Your task to perform on an android device: turn on priority inbox in the gmail app Image 0: 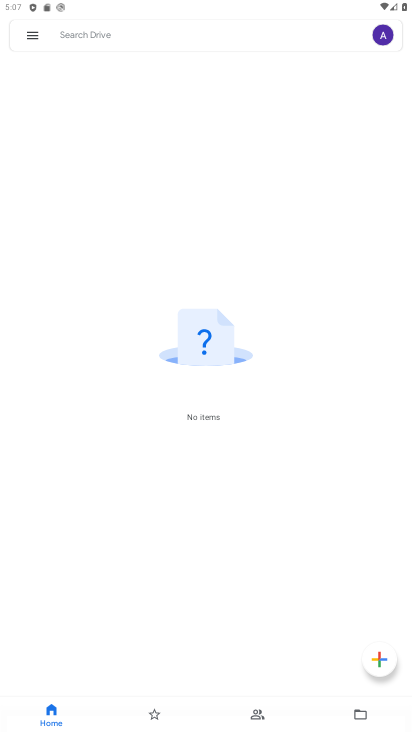
Step 0: press home button
Your task to perform on an android device: turn on priority inbox in the gmail app Image 1: 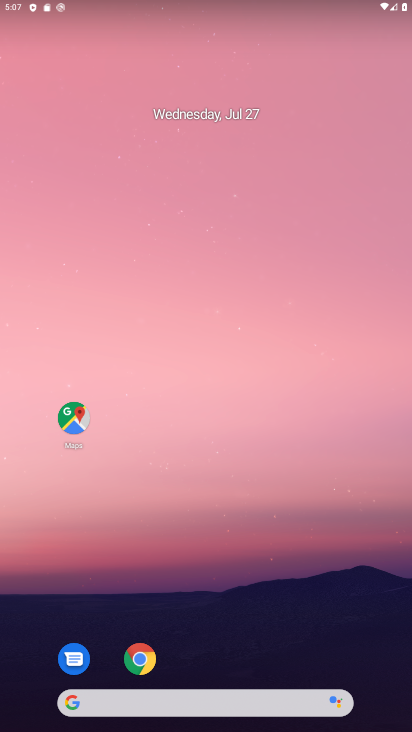
Step 1: drag from (248, 621) to (272, 101)
Your task to perform on an android device: turn on priority inbox in the gmail app Image 2: 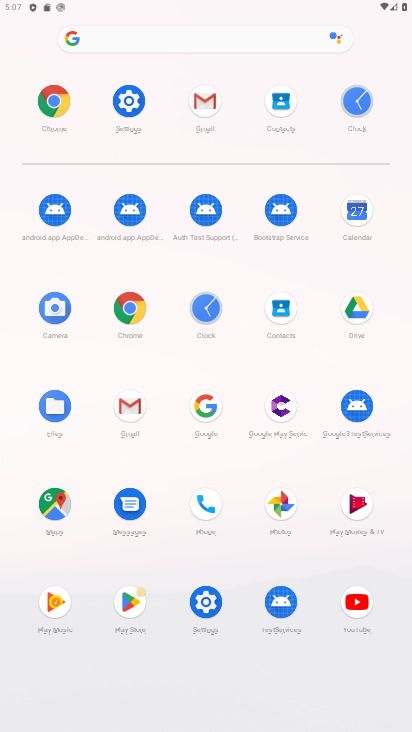
Step 2: click (129, 398)
Your task to perform on an android device: turn on priority inbox in the gmail app Image 3: 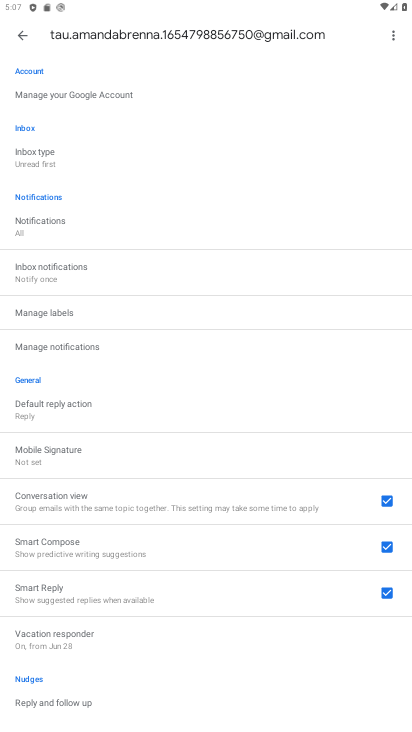
Step 3: click (37, 156)
Your task to perform on an android device: turn on priority inbox in the gmail app Image 4: 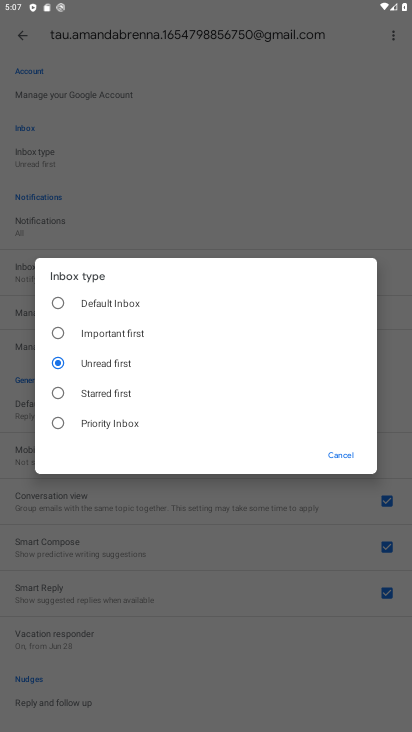
Step 4: click (107, 427)
Your task to perform on an android device: turn on priority inbox in the gmail app Image 5: 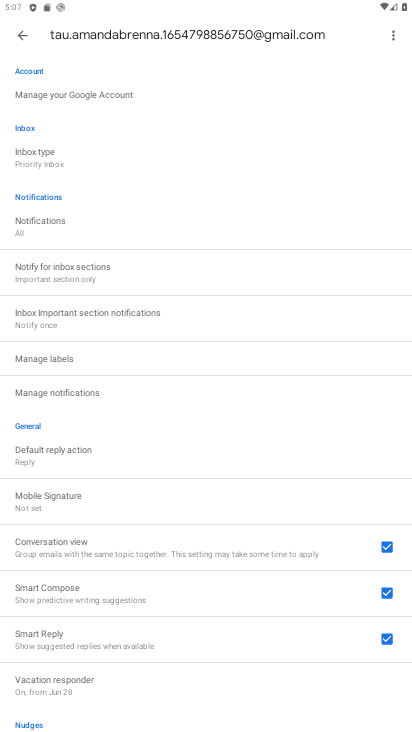
Step 5: task complete